Your task to perform on an android device: turn on priority inbox in the gmail app Image 0: 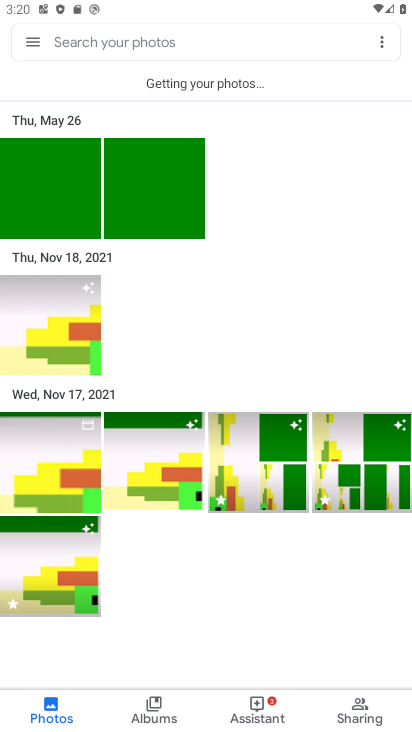
Step 0: press home button
Your task to perform on an android device: turn on priority inbox in the gmail app Image 1: 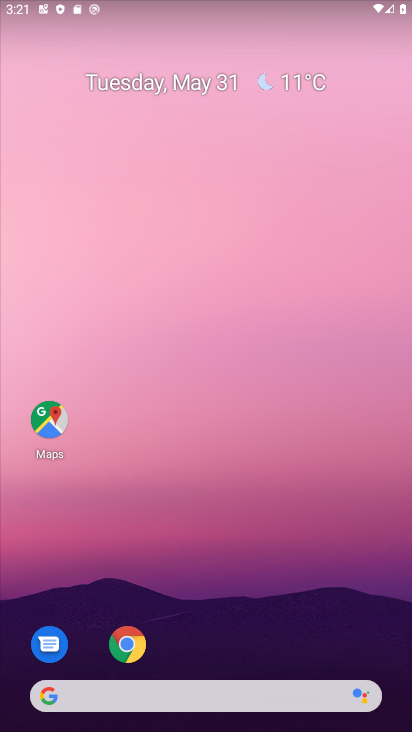
Step 1: drag from (210, 656) to (317, 139)
Your task to perform on an android device: turn on priority inbox in the gmail app Image 2: 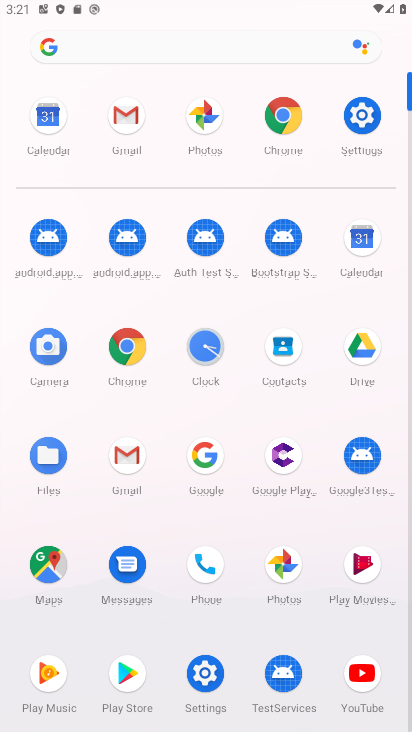
Step 2: click (123, 105)
Your task to perform on an android device: turn on priority inbox in the gmail app Image 3: 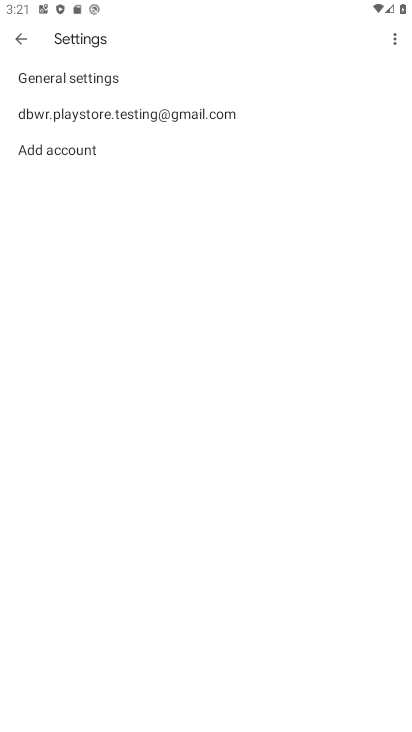
Step 3: click (147, 66)
Your task to perform on an android device: turn on priority inbox in the gmail app Image 4: 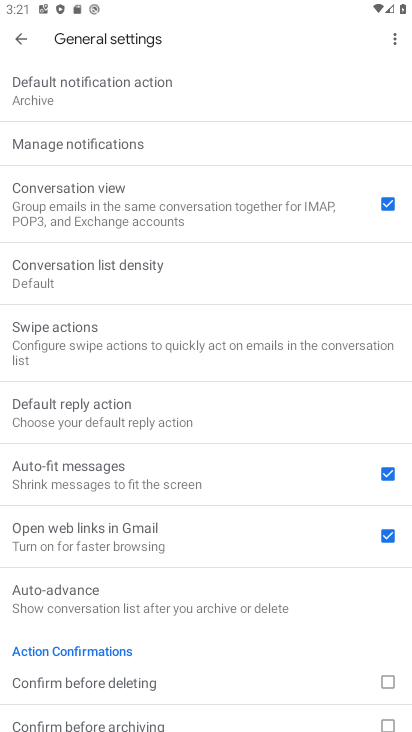
Step 4: task complete